Your task to perform on an android device: add a label to a message in the gmail app Image 0: 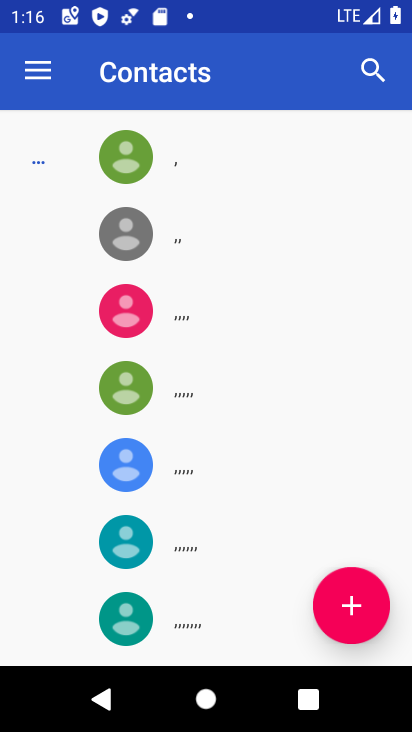
Step 0: press home button
Your task to perform on an android device: add a label to a message in the gmail app Image 1: 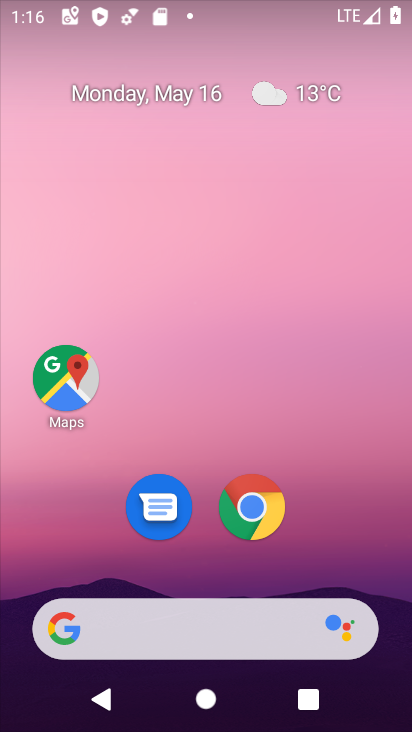
Step 1: drag from (331, 519) to (238, 25)
Your task to perform on an android device: add a label to a message in the gmail app Image 2: 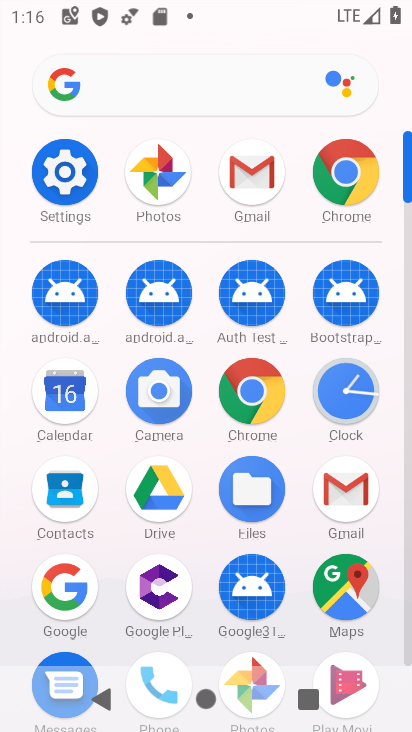
Step 2: click (262, 168)
Your task to perform on an android device: add a label to a message in the gmail app Image 3: 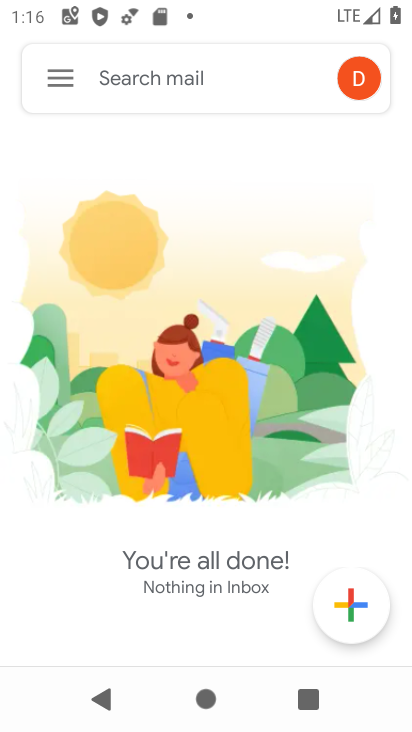
Step 3: click (62, 88)
Your task to perform on an android device: add a label to a message in the gmail app Image 4: 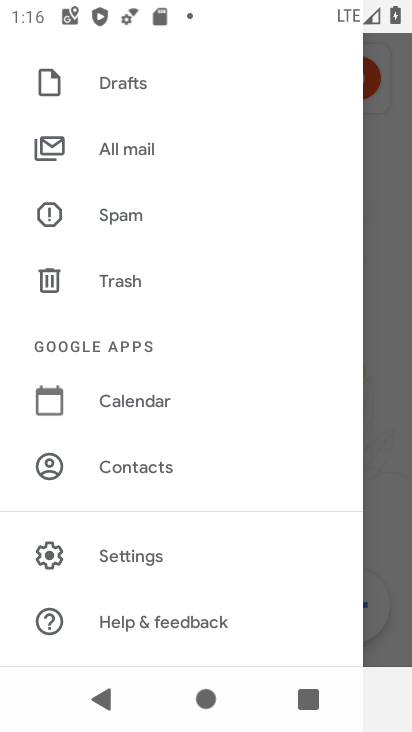
Step 4: click (162, 148)
Your task to perform on an android device: add a label to a message in the gmail app Image 5: 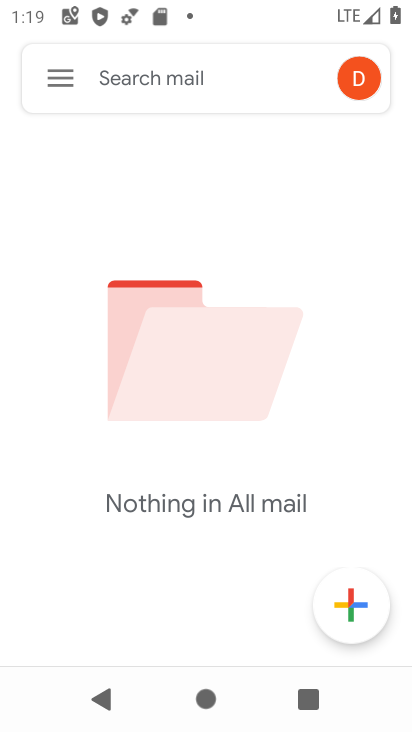
Step 5: task complete